Your task to perform on an android device: Empty the shopping cart on amazon. Image 0: 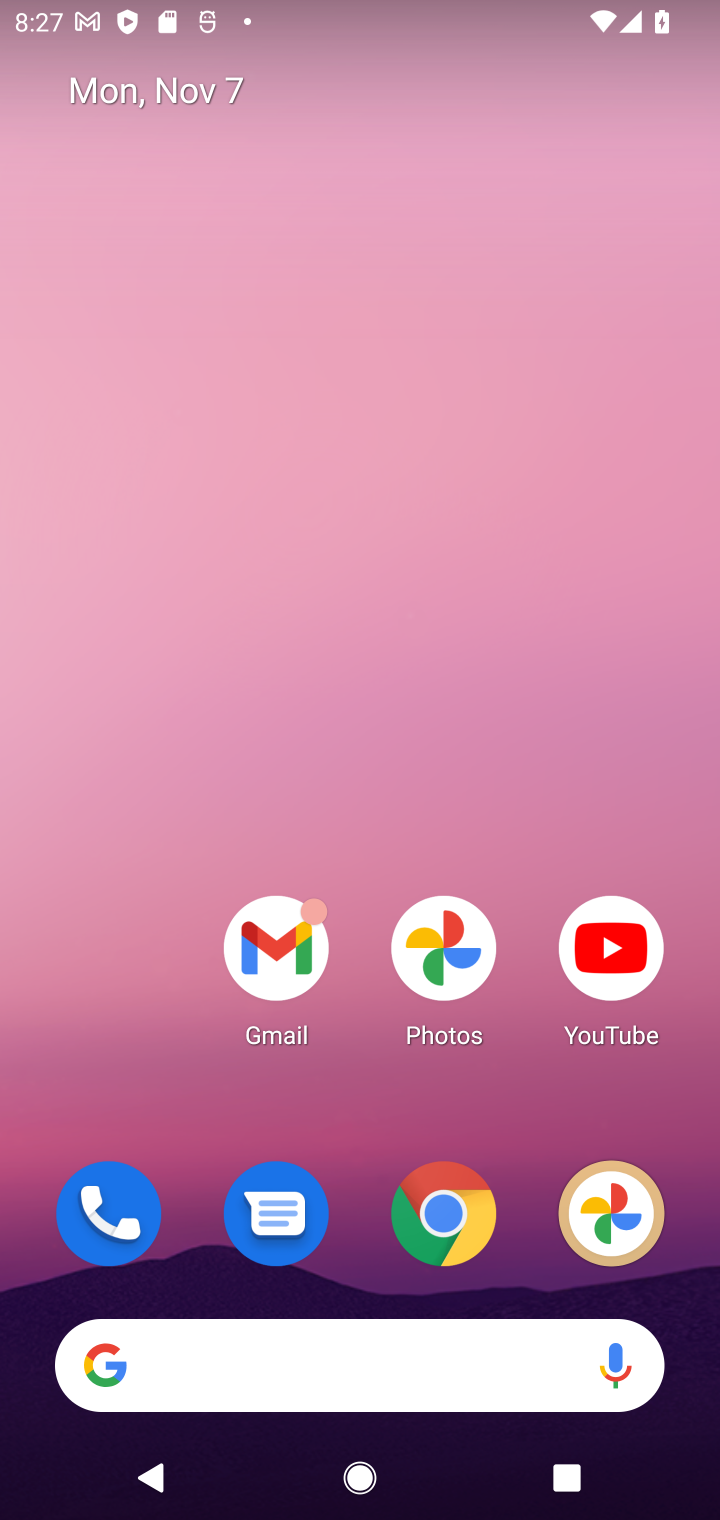
Step 0: click (465, 1219)
Your task to perform on an android device: Empty the shopping cart on amazon. Image 1: 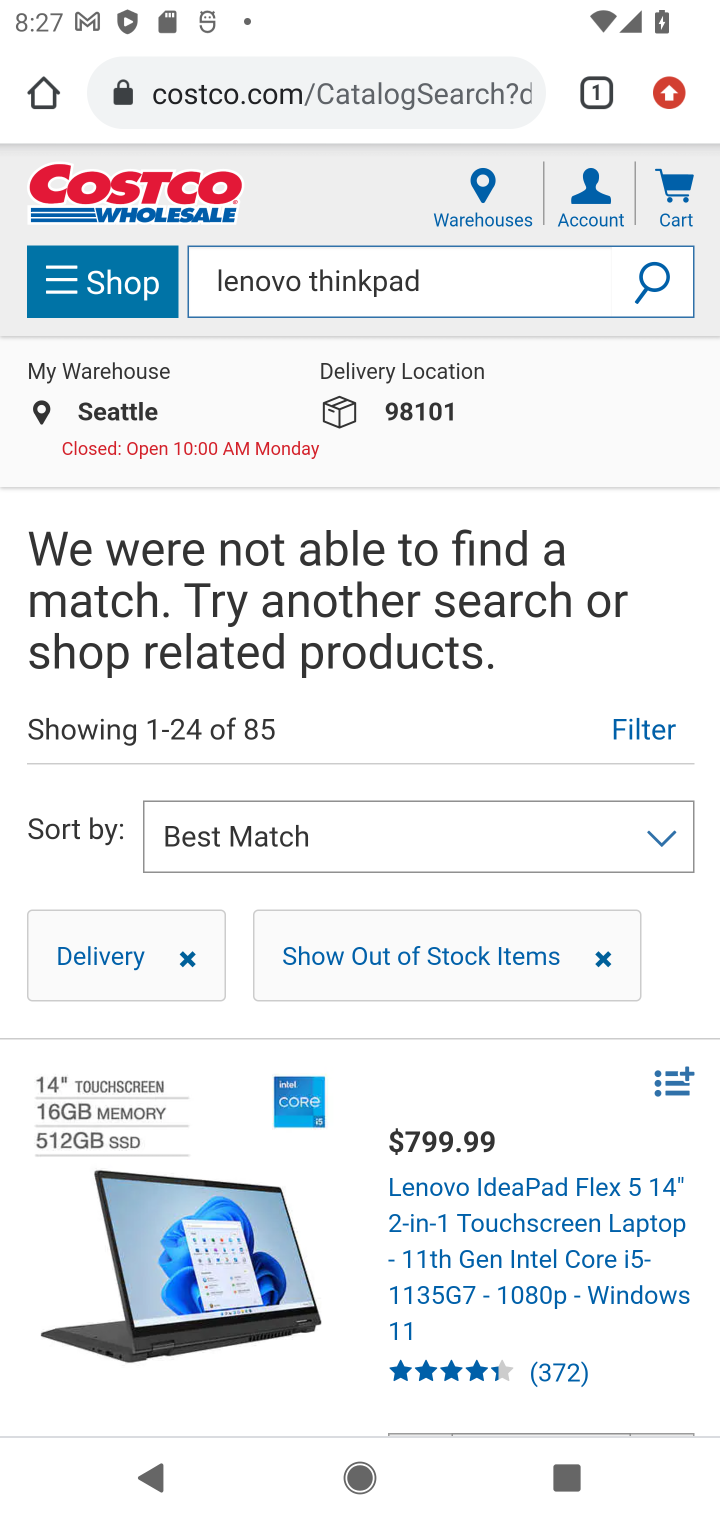
Step 1: click (289, 99)
Your task to perform on an android device: Empty the shopping cart on amazon. Image 2: 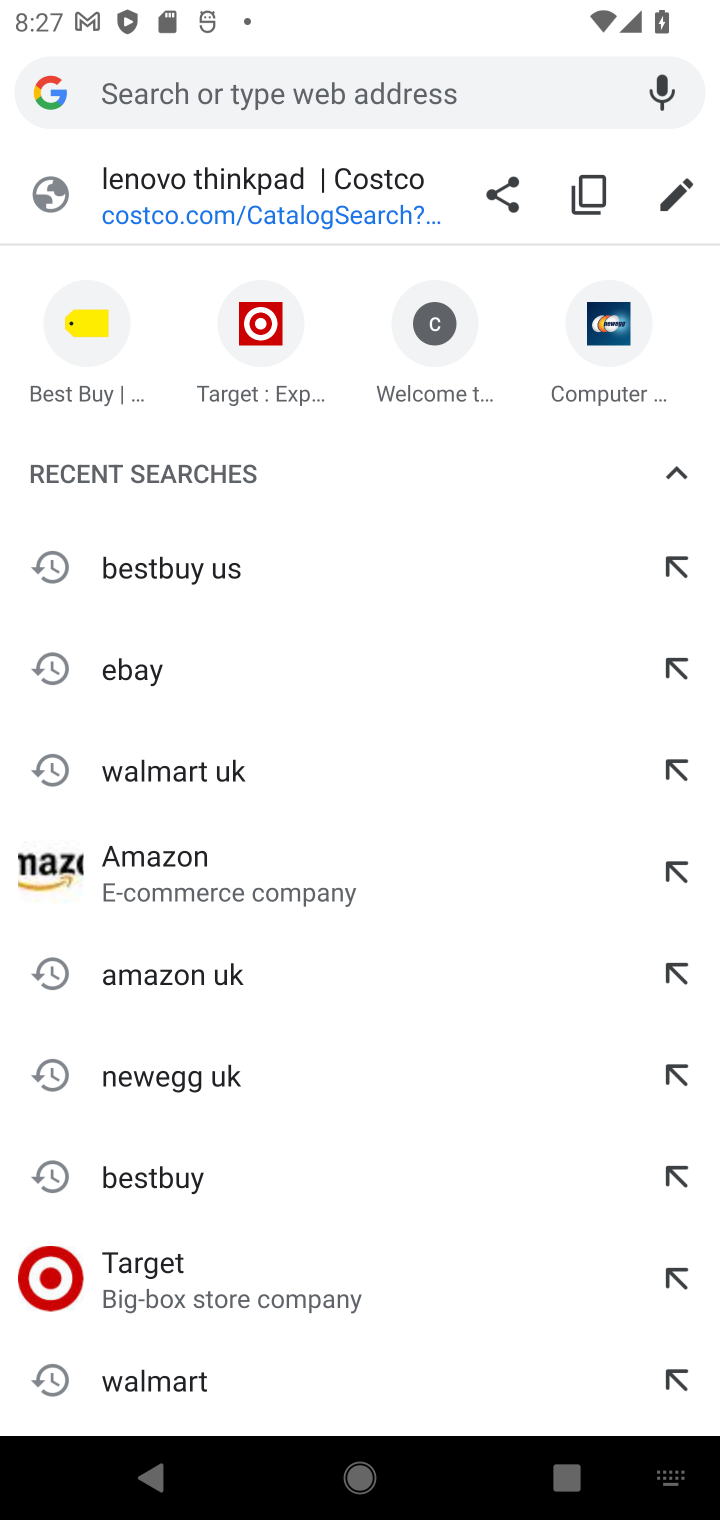
Step 2: click (224, 872)
Your task to perform on an android device: Empty the shopping cart on amazon. Image 3: 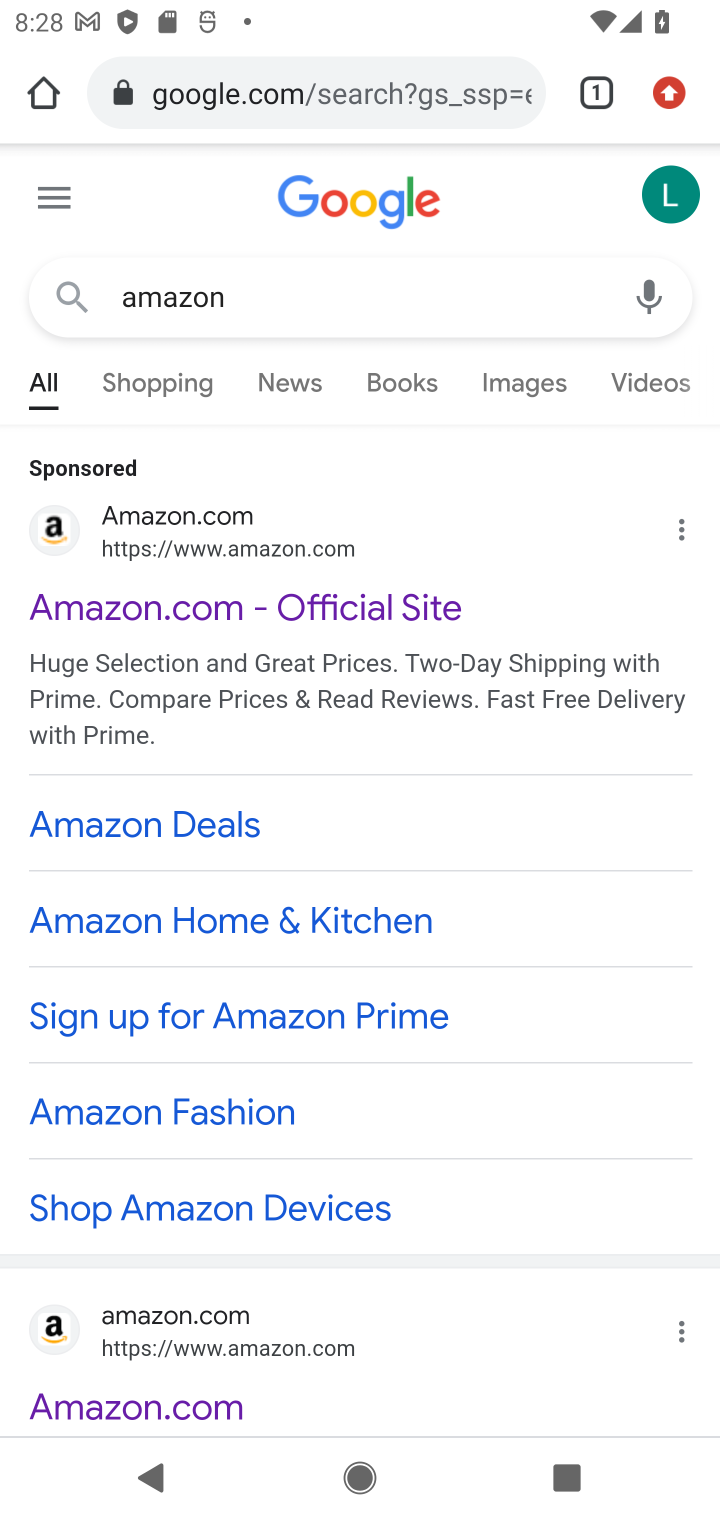
Step 3: drag from (270, 993) to (270, 554)
Your task to perform on an android device: Empty the shopping cart on amazon. Image 4: 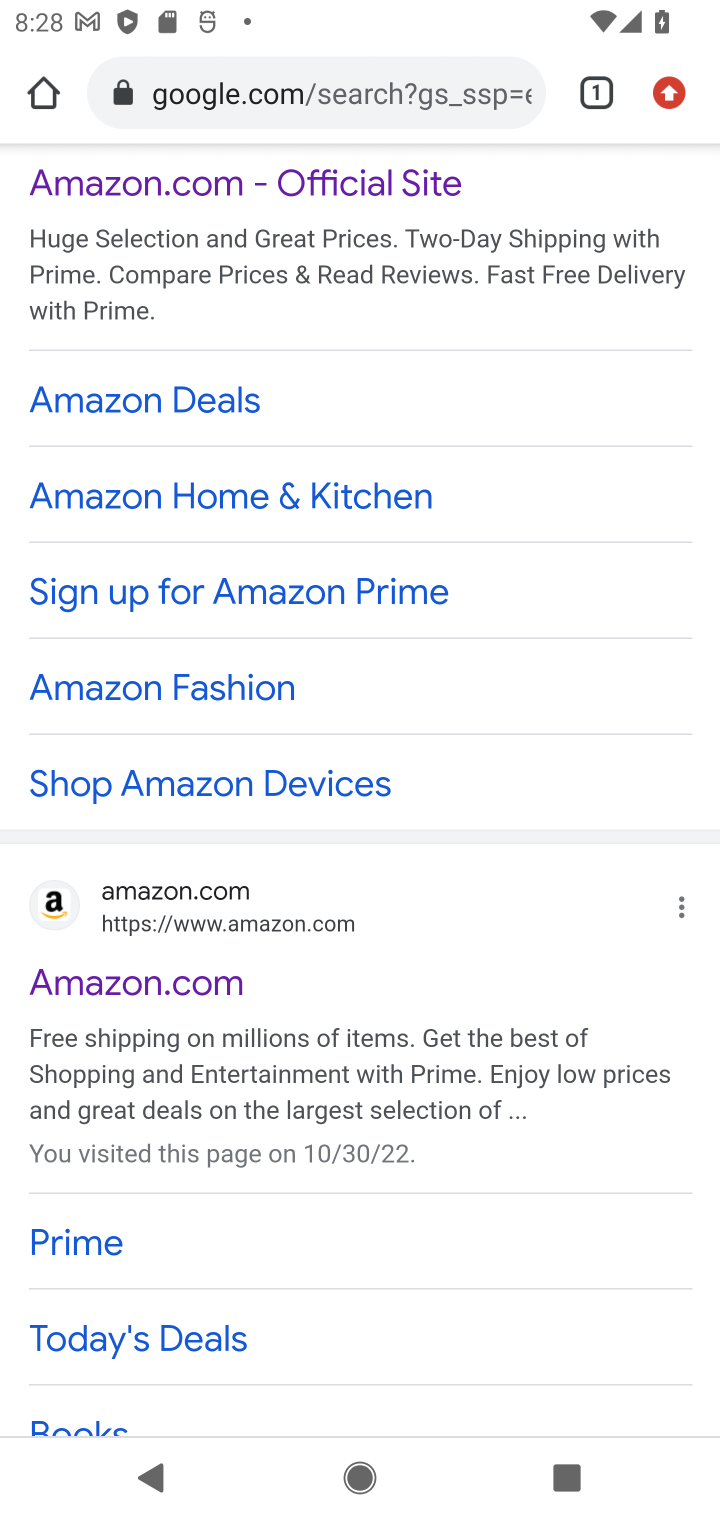
Step 4: click (142, 897)
Your task to perform on an android device: Empty the shopping cart on amazon. Image 5: 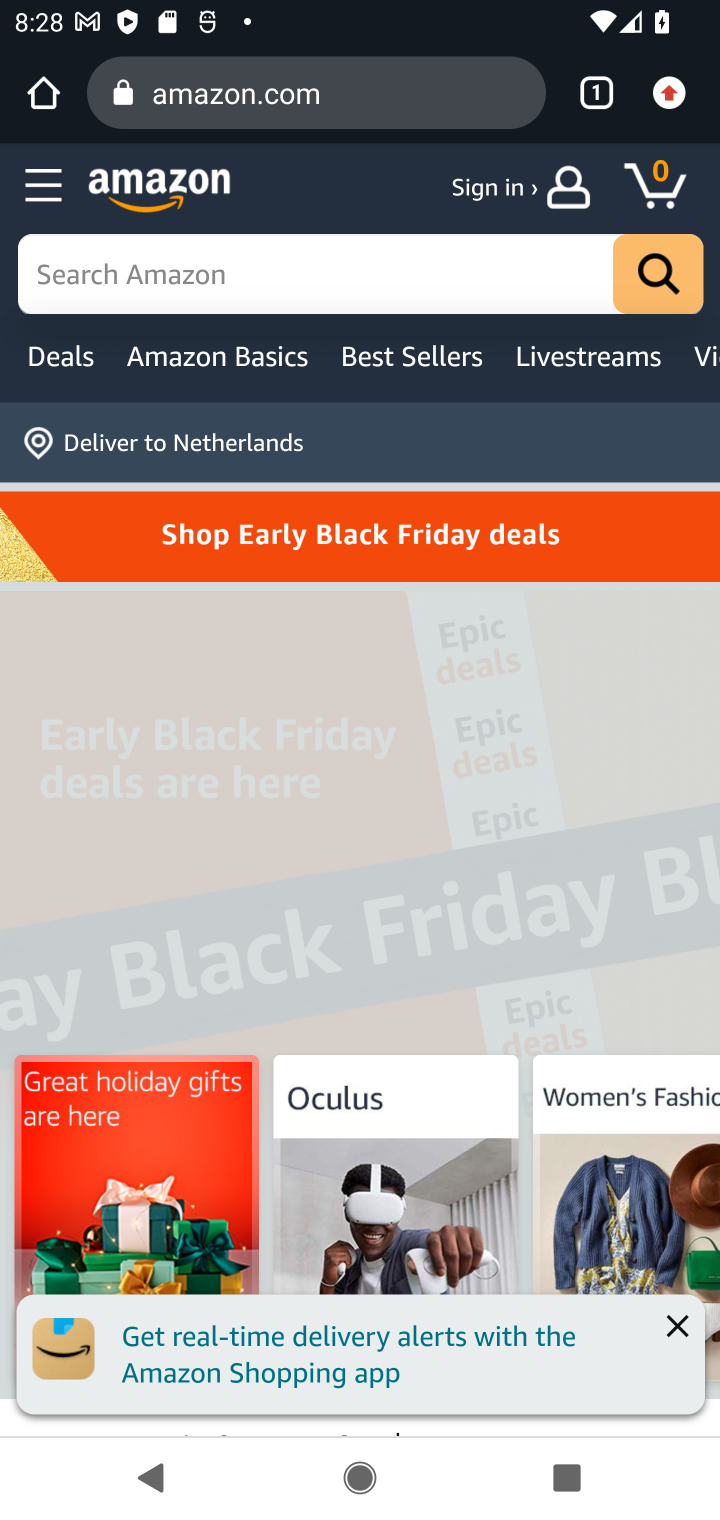
Step 5: click (649, 183)
Your task to perform on an android device: Empty the shopping cart on amazon. Image 6: 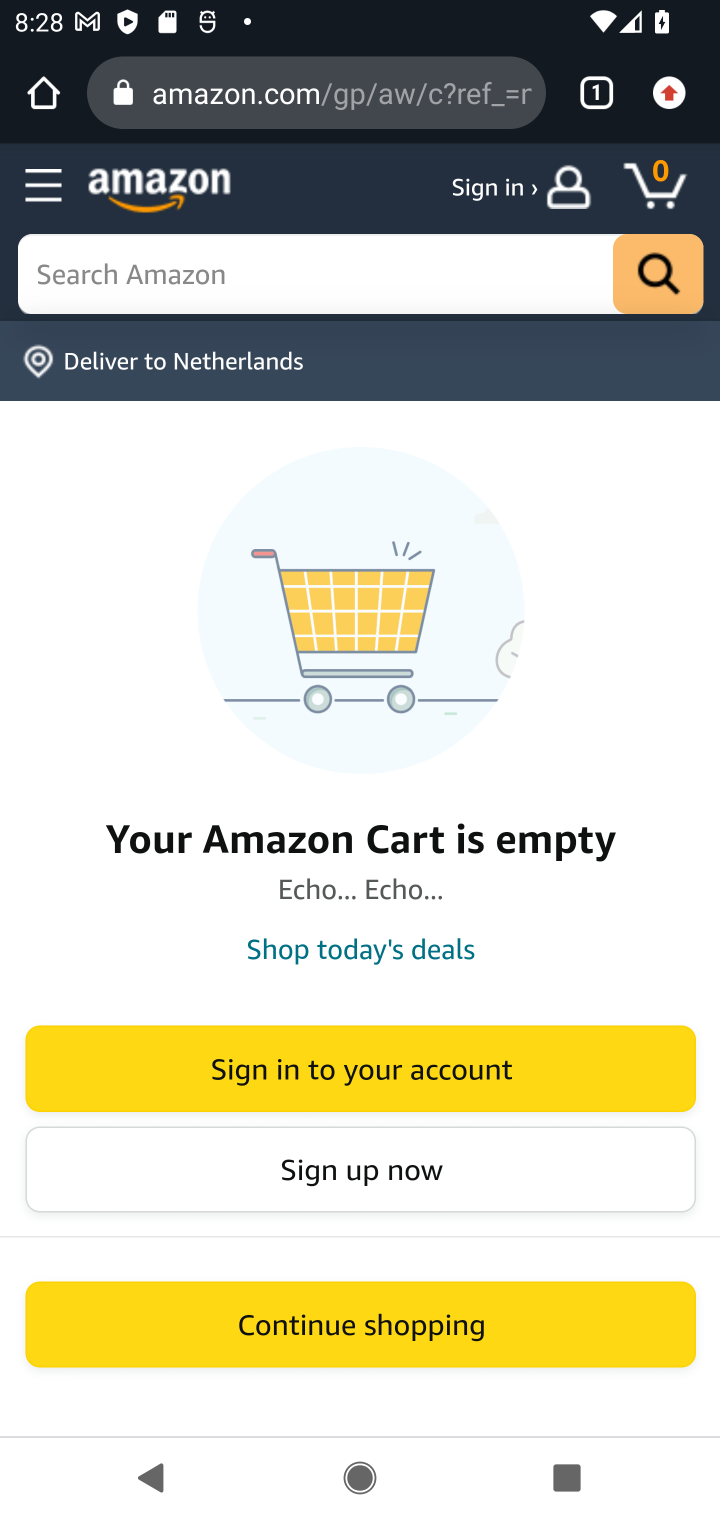
Step 6: task complete